Your task to perform on an android device: open app "DuckDuckGo Privacy Browser" (install if not already installed) and enter user name: "cleaving@outlook.com" and password: "freighters" Image 0: 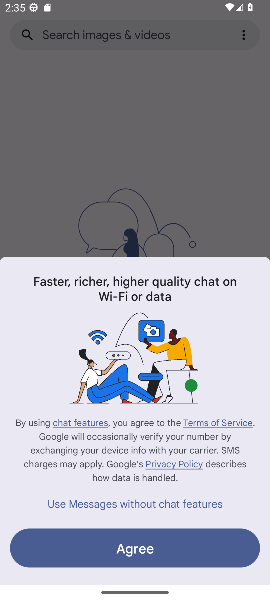
Step 0: press home button
Your task to perform on an android device: open app "DuckDuckGo Privacy Browser" (install if not already installed) and enter user name: "cleaving@outlook.com" and password: "freighters" Image 1: 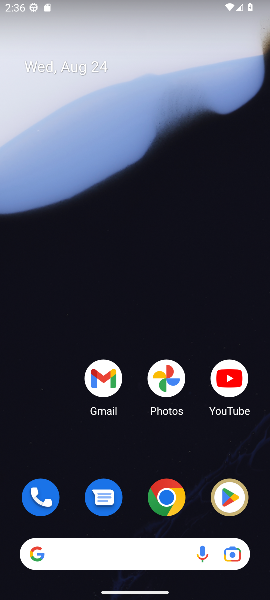
Step 1: drag from (126, 561) to (151, 196)
Your task to perform on an android device: open app "DuckDuckGo Privacy Browser" (install if not already installed) and enter user name: "cleaving@outlook.com" and password: "freighters" Image 2: 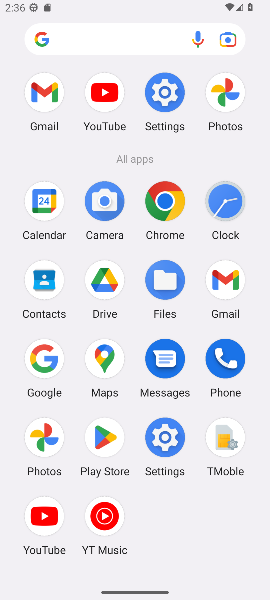
Step 2: click (106, 436)
Your task to perform on an android device: open app "DuckDuckGo Privacy Browser" (install if not already installed) and enter user name: "cleaving@outlook.com" and password: "freighters" Image 3: 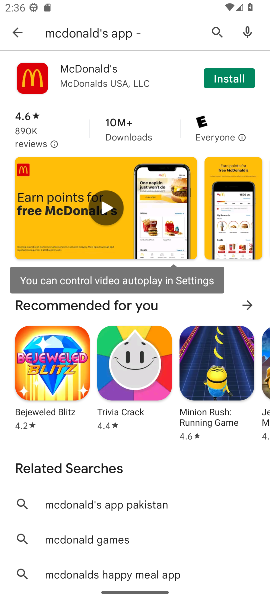
Step 3: press back button
Your task to perform on an android device: open app "DuckDuckGo Privacy Browser" (install if not already installed) and enter user name: "cleaving@outlook.com" and password: "freighters" Image 4: 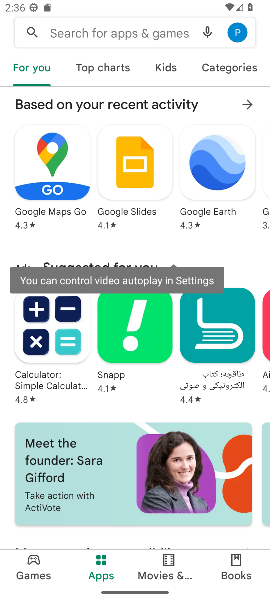
Step 4: click (142, 36)
Your task to perform on an android device: open app "DuckDuckGo Privacy Browser" (install if not already installed) and enter user name: "cleaving@outlook.com" and password: "freighters" Image 5: 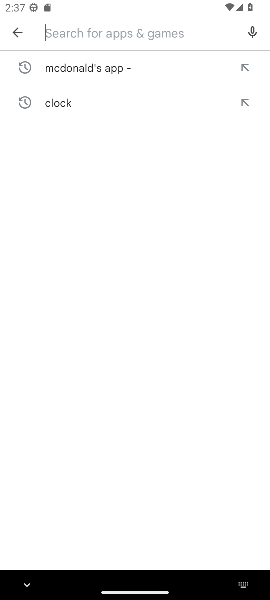
Step 5: type "DuckDuckGo Privacy Browser"
Your task to perform on an android device: open app "DuckDuckGo Privacy Browser" (install if not already installed) and enter user name: "cleaving@outlook.com" and password: "freighters" Image 6: 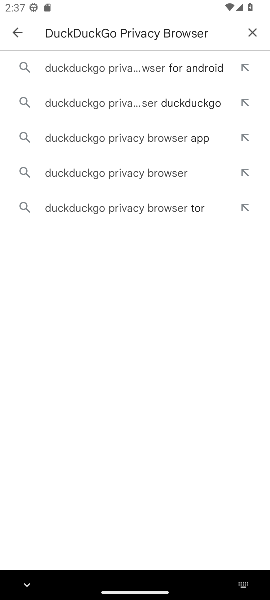
Step 6: click (97, 64)
Your task to perform on an android device: open app "DuckDuckGo Privacy Browser" (install if not already installed) and enter user name: "cleaving@outlook.com" and password: "freighters" Image 7: 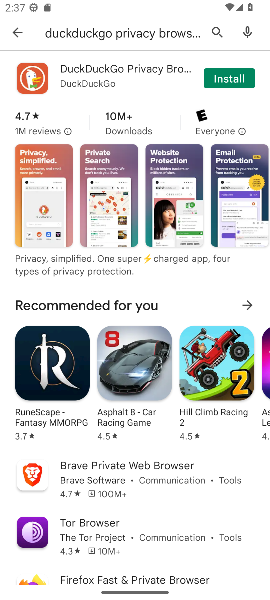
Step 7: click (224, 80)
Your task to perform on an android device: open app "DuckDuckGo Privacy Browser" (install if not already installed) and enter user name: "cleaving@outlook.com" and password: "freighters" Image 8: 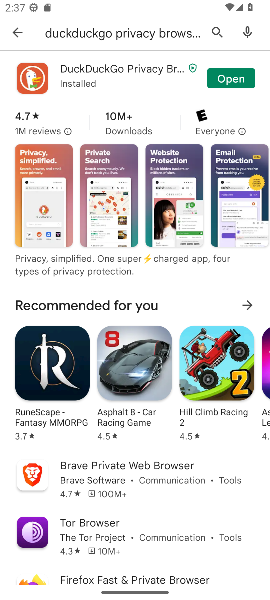
Step 8: click (224, 80)
Your task to perform on an android device: open app "DuckDuckGo Privacy Browser" (install if not already installed) and enter user name: "cleaving@outlook.com" and password: "freighters" Image 9: 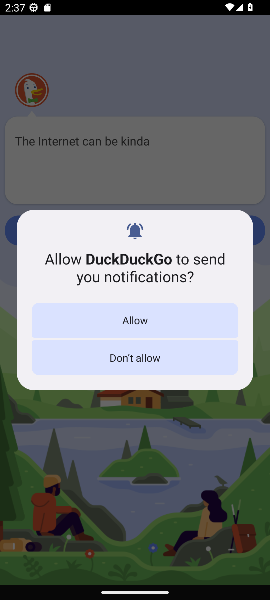
Step 9: click (132, 321)
Your task to perform on an android device: open app "DuckDuckGo Privacy Browser" (install if not already installed) and enter user name: "cleaving@outlook.com" and password: "freighters" Image 10: 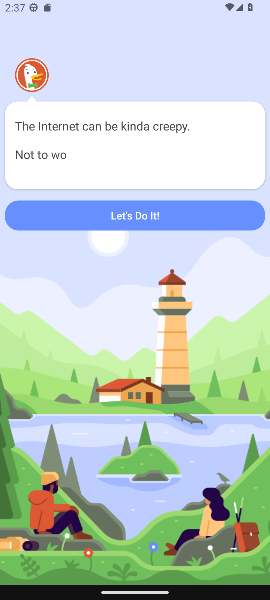
Step 10: click (132, 321)
Your task to perform on an android device: open app "DuckDuckGo Privacy Browser" (install if not already installed) and enter user name: "cleaving@outlook.com" and password: "freighters" Image 11: 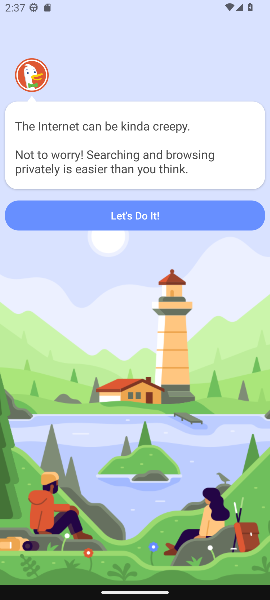
Step 11: click (159, 223)
Your task to perform on an android device: open app "DuckDuckGo Privacy Browser" (install if not already installed) and enter user name: "cleaving@outlook.com" and password: "freighters" Image 12: 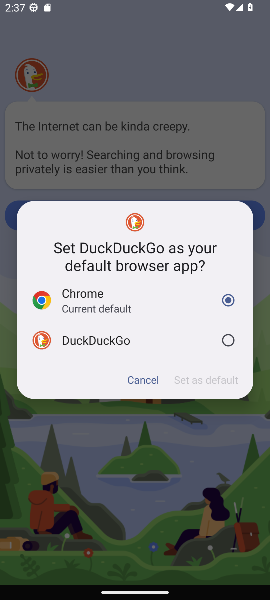
Step 12: click (220, 333)
Your task to perform on an android device: open app "DuckDuckGo Privacy Browser" (install if not already installed) and enter user name: "cleaving@outlook.com" and password: "freighters" Image 13: 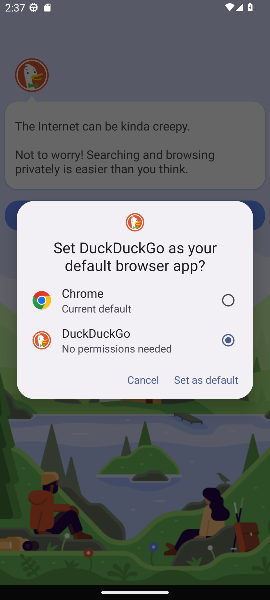
Step 13: click (227, 339)
Your task to perform on an android device: open app "DuckDuckGo Privacy Browser" (install if not already installed) and enter user name: "cleaving@outlook.com" and password: "freighters" Image 14: 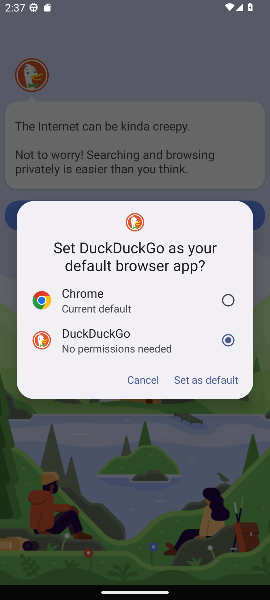
Step 14: click (209, 378)
Your task to perform on an android device: open app "DuckDuckGo Privacy Browser" (install if not already installed) and enter user name: "cleaving@outlook.com" and password: "freighters" Image 15: 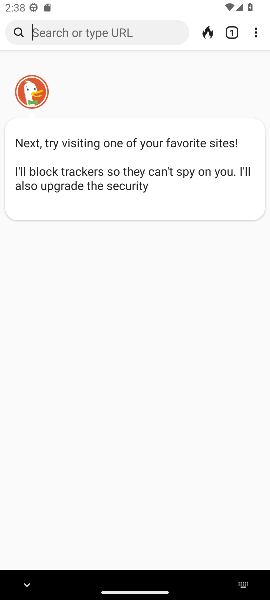
Step 15: click (29, 583)
Your task to perform on an android device: open app "DuckDuckGo Privacy Browser" (install if not already installed) and enter user name: "cleaving@outlook.com" and password: "freighters" Image 16: 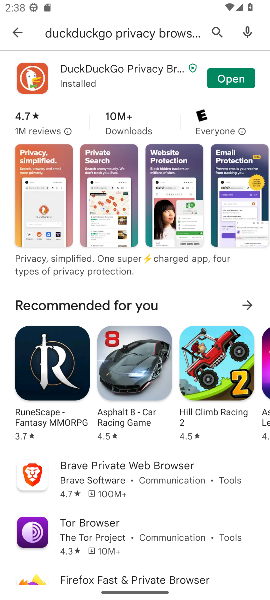
Step 16: click (243, 84)
Your task to perform on an android device: open app "DuckDuckGo Privacy Browser" (install if not already installed) and enter user name: "cleaving@outlook.com" and password: "freighters" Image 17: 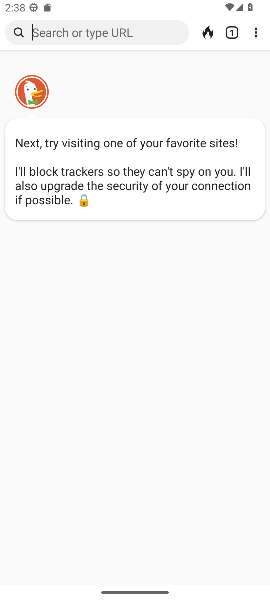
Step 17: task complete